Your task to perform on an android device: Open Google Chrome and open the bookmarks view Image 0: 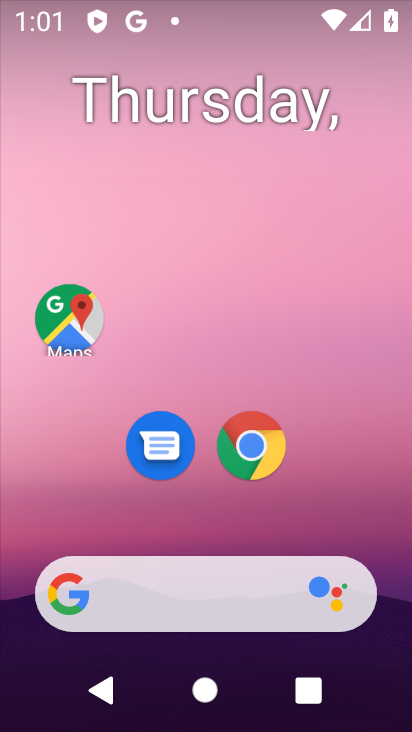
Step 0: drag from (198, 519) to (198, 0)
Your task to perform on an android device: Open Google Chrome and open the bookmarks view Image 1: 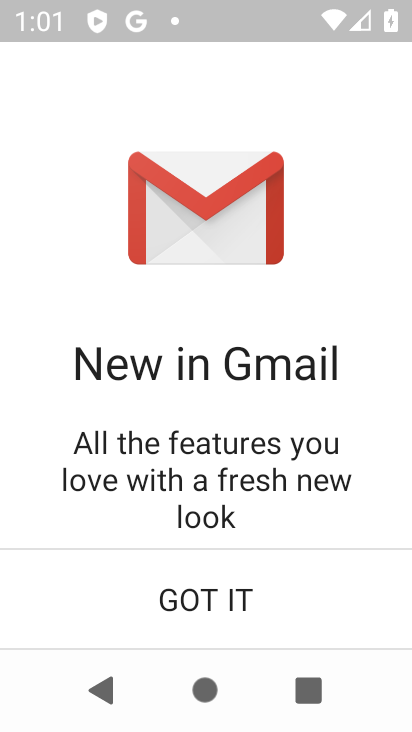
Step 1: click (253, 584)
Your task to perform on an android device: Open Google Chrome and open the bookmarks view Image 2: 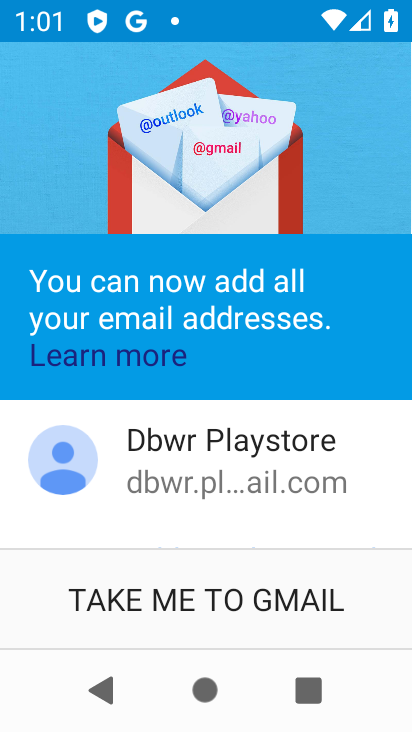
Step 2: click (223, 601)
Your task to perform on an android device: Open Google Chrome and open the bookmarks view Image 3: 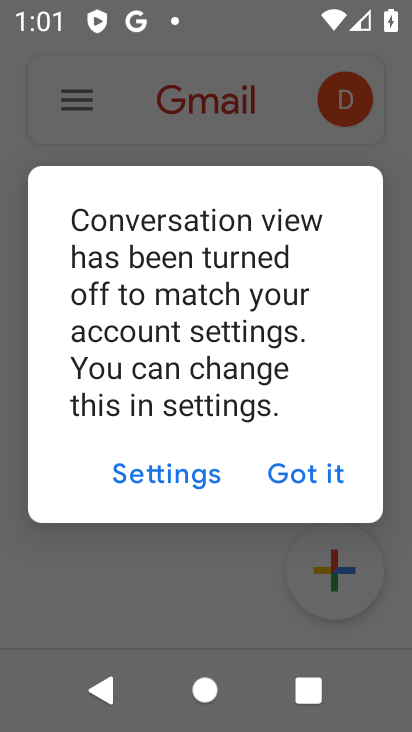
Step 3: drag from (176, 579) to (215, 324)
Your task to perform on an android device: Open Google Chrome and open the bookmarks view Image 4: 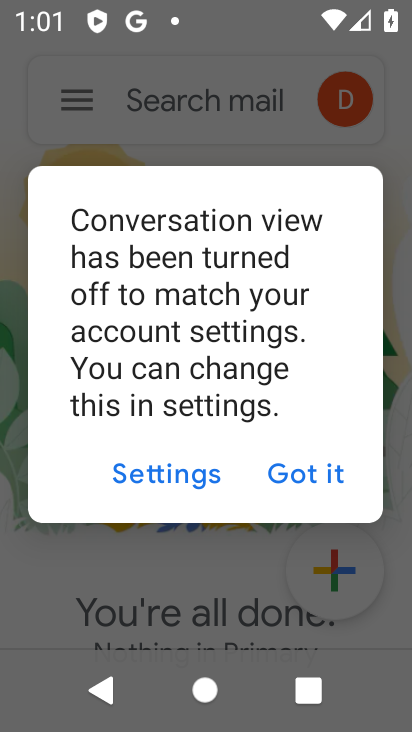
Step 4: press home button
Your task to perform on an android device: Open Google Chrome and open the bookmarks view Image 5: 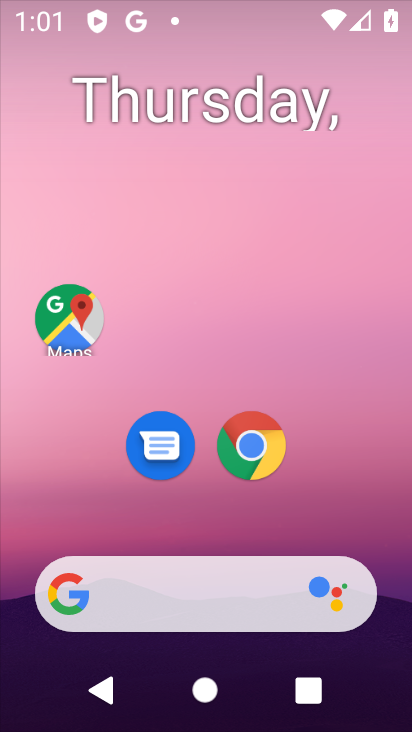
Step 5: drag from (192, 540) to (197, 124)
Your task to perform on an android device: Open Google Chrome and open the bookmarks view Image 6: 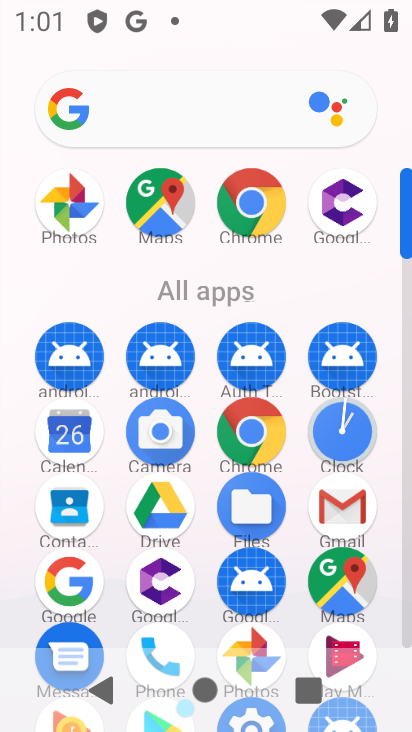
Step 6: click (239, 213)
Your task to perform on an android device: Open Google Chrome and open the bookmarks view Image 7: 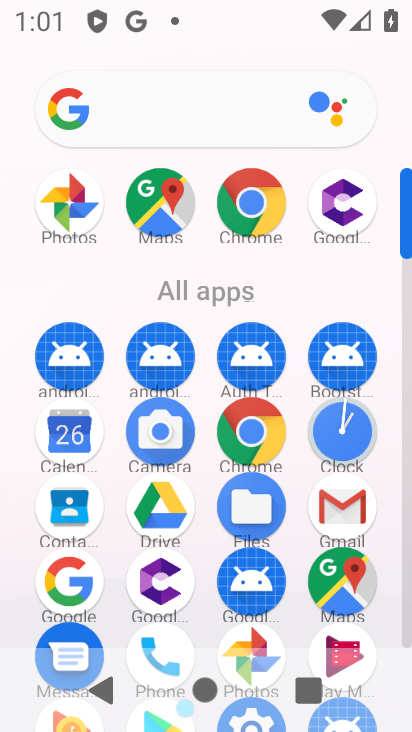
Step 7: click (239, 213)
Your task to perform on an android device: Open Google Chrome and open the bookmarks view Image 8: 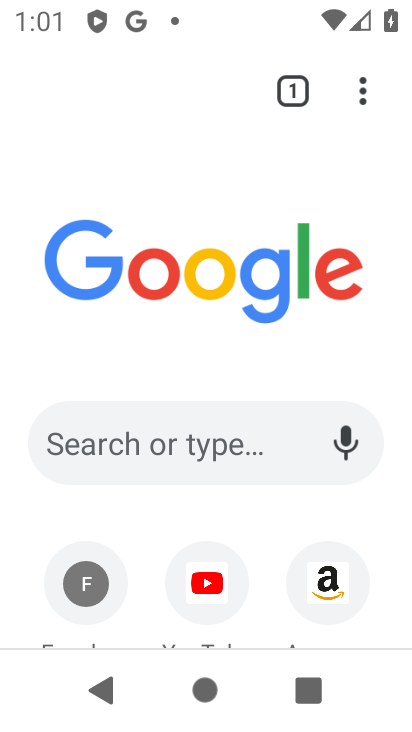
Step 8: click (371, 81)
Your task to perform on an android device: Open Google Chrome and open the bookmarks view Image 9: 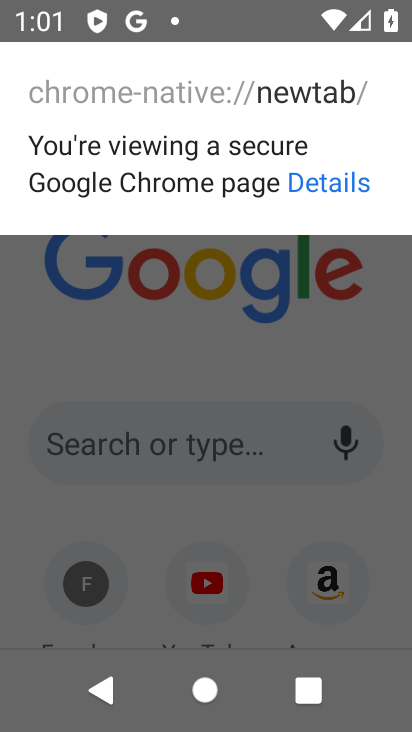
Step 9: click (363, 334)
Your task to perform on an android device: Open Google Chrome and open the bookmarks view Image 10: 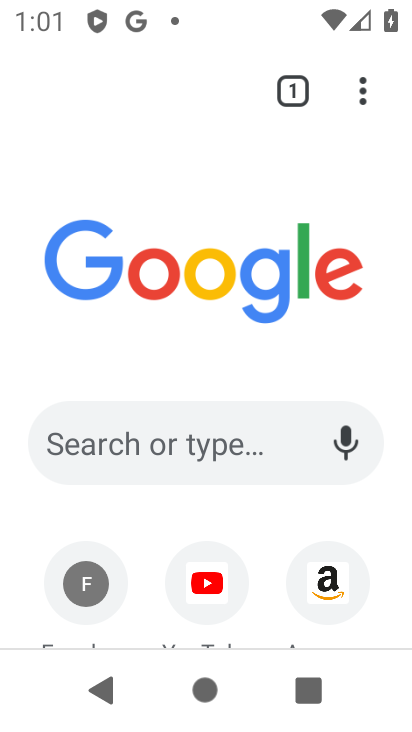
Step 10: click (357, 99)
Your task to perform on an android device: Open Google Chrome and open the bookmarks view Image 11: 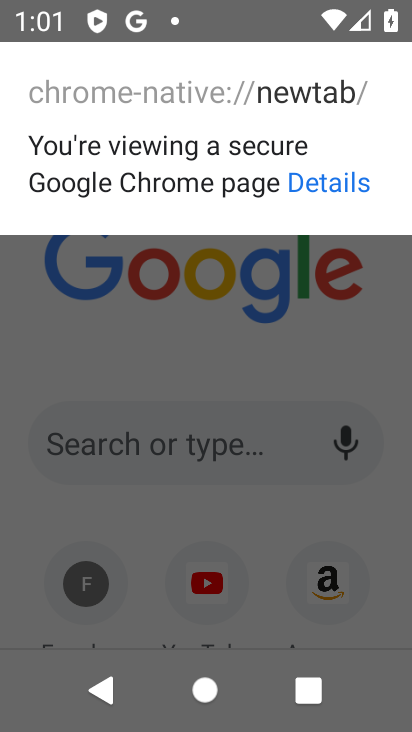
Step 11: click (344, 317)
Your task to perform on an android device: Open Google Chrome and open the bookmarks view Image 12: 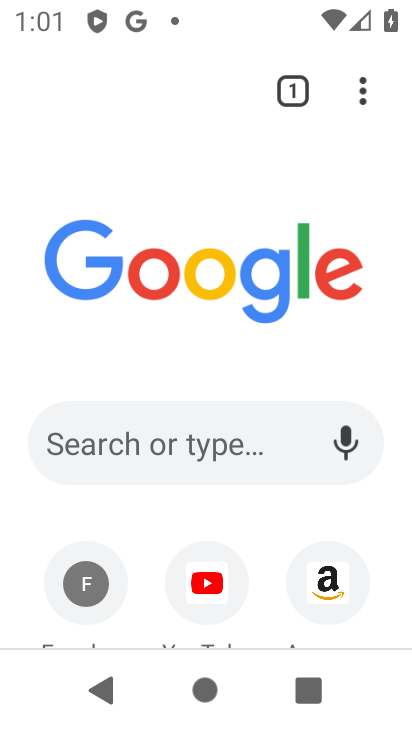
Step 12: click (363, 97)
Your task to perform on an android device: Open Google Chrome and open the bookmarks view Image 13: 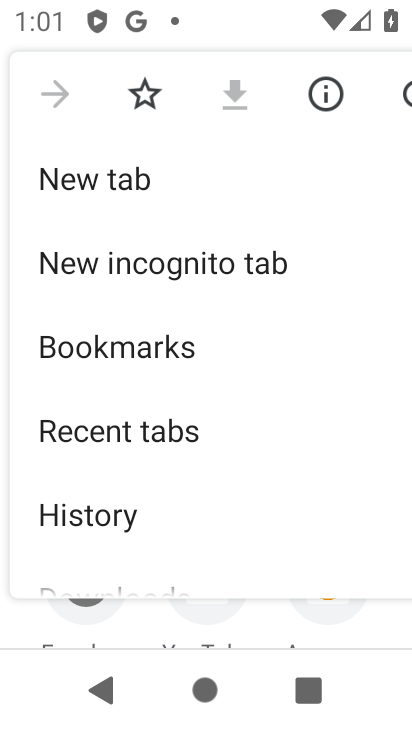
Step 13: click (151, 331)
Your task to perform on an android device: Open Google Chrome and open the bookmarks view Image 14: 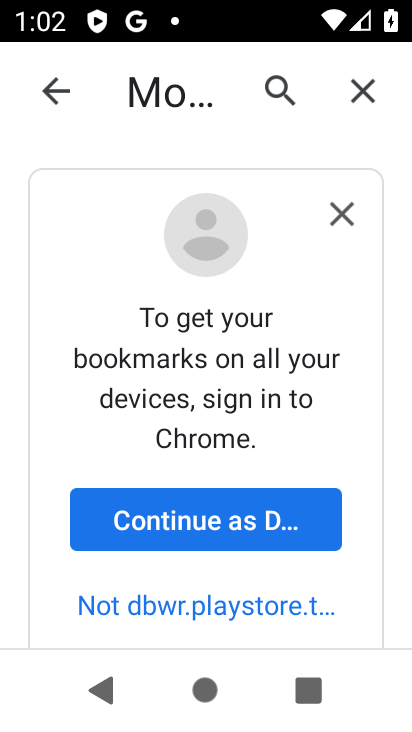
Step 14: click (334, 204)
Your task to perform on an android device: Open Google Chrome and open the bookmarks view Image 15: 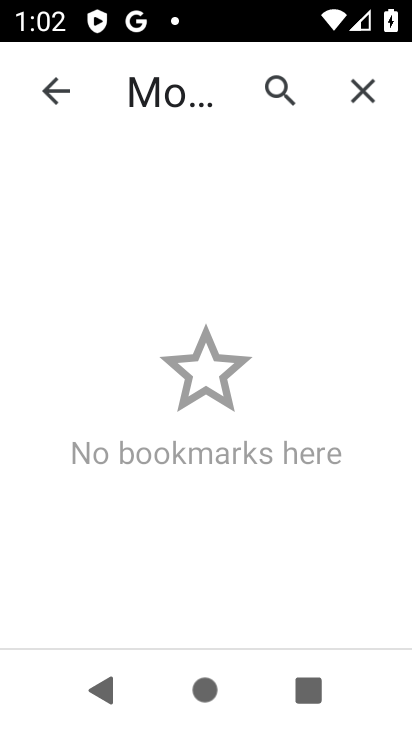
Step 15: task complete